Your task to perform on an android device: delete browsing data in the chrome app Image 0: 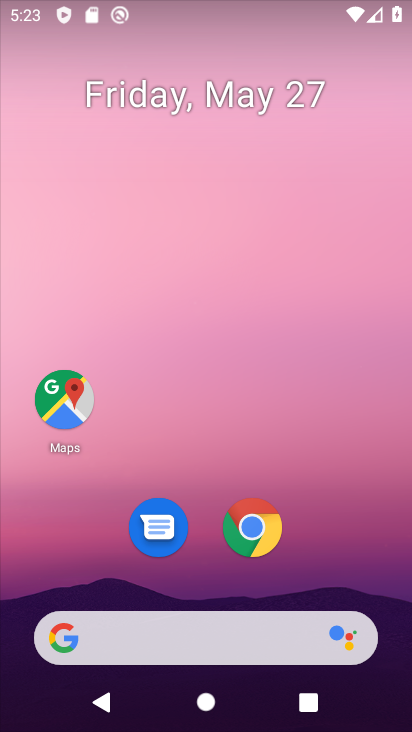
Step 0: click (249, 529)
Your task to perform on an android device: delete browsing data in the chrome app Image 1: 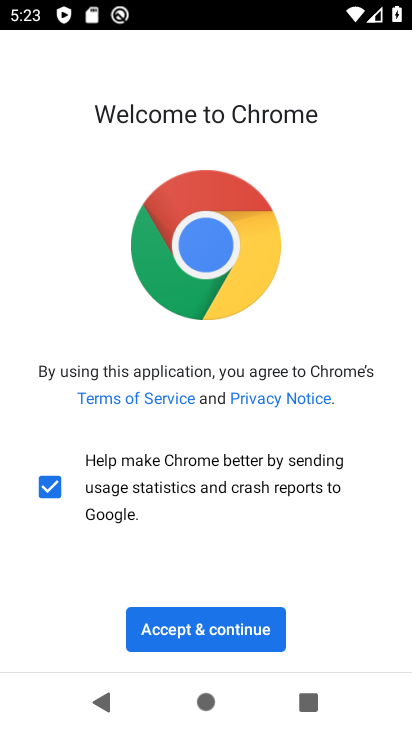
Step 1: click (229, 635)
Your task to perform on an android device: delete browsing data in the chrome app Image 2: 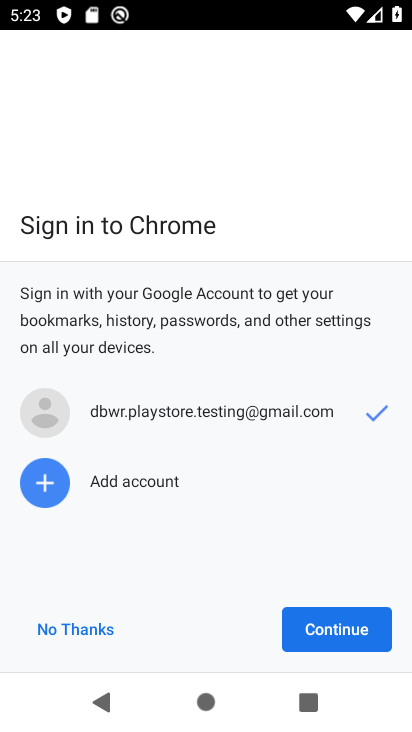
Step 2: click (310, 614)
Your task to perform on an android device: delete browsing data in the chrome app Image 3: 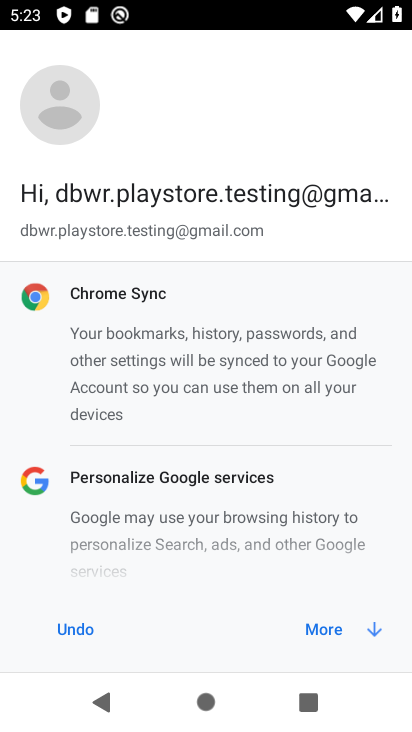
Step 3: click (310, 614)
Your task to perform on an android device: delete browsing data in the chrome app Image 4: 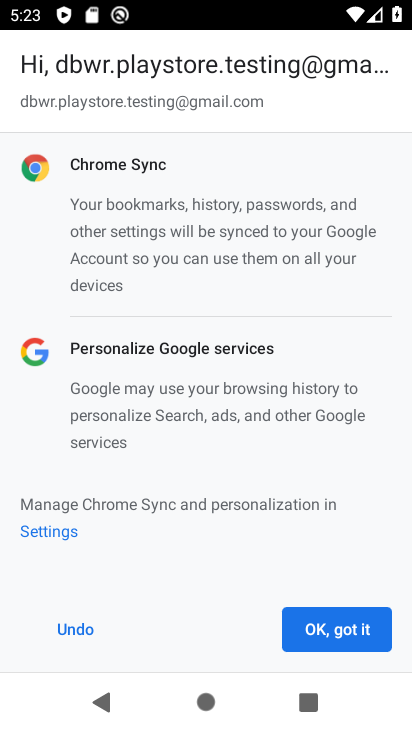
Step 4: click (325, 630)
Your task to perform on an android device: delete browsing data in the chrome app Image 5: 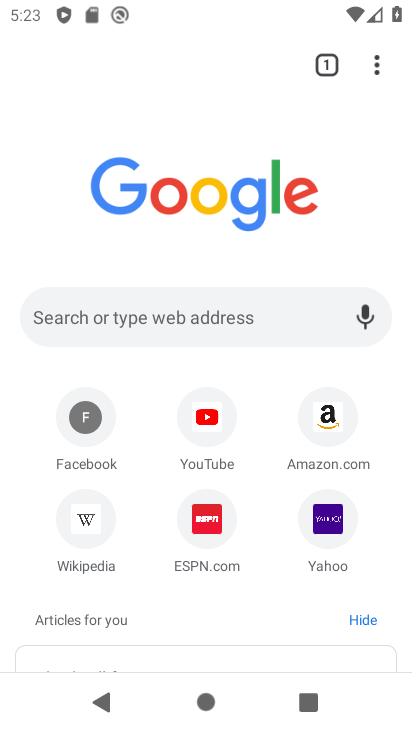
Step 5: click (377, 73)
Your task to perform on an android device: delete browsing data in the chrome app Image 6: 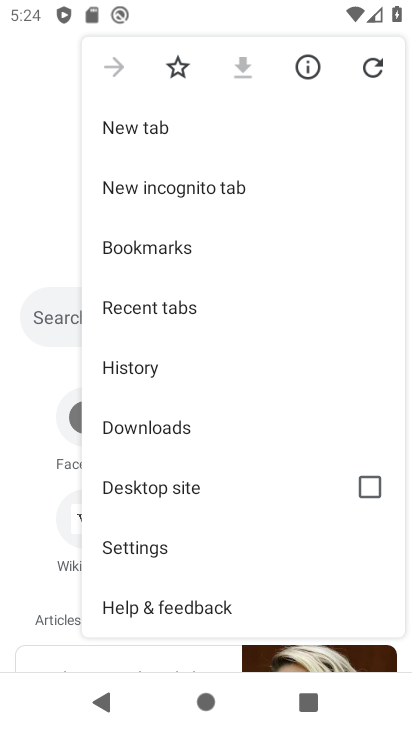
Step 6: click (161, 368)
Your task to perform on an android device: delete browsing data in the chrome app Image 7: 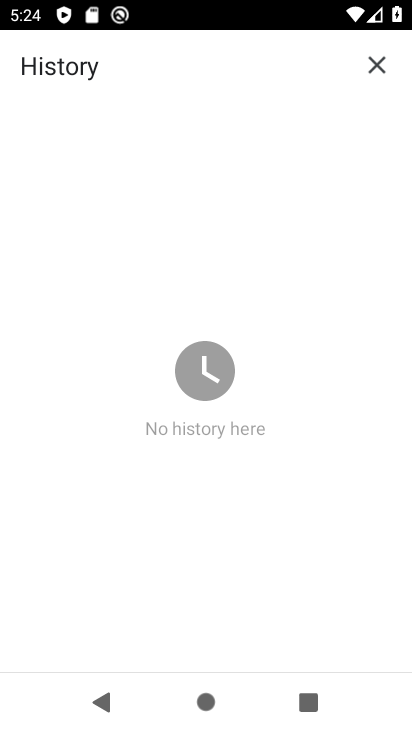
Step 7: task complete